Your task to perform on an android device: Go to internet settings Image 0: 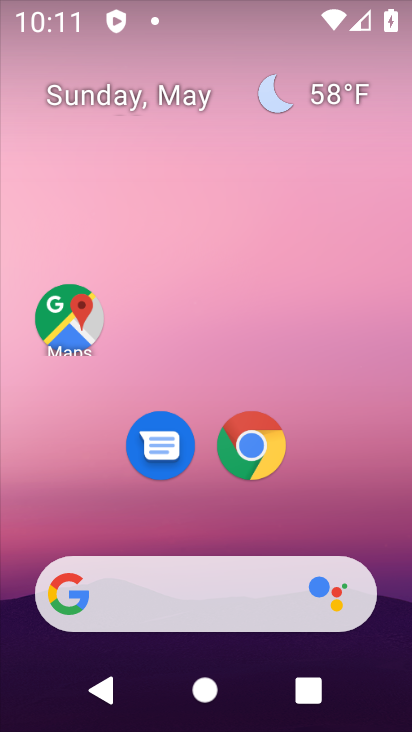
Step 0: drag from (335, 418) to (229, 41)
Your task to perform on an android device: Go to internet settings Image 1: 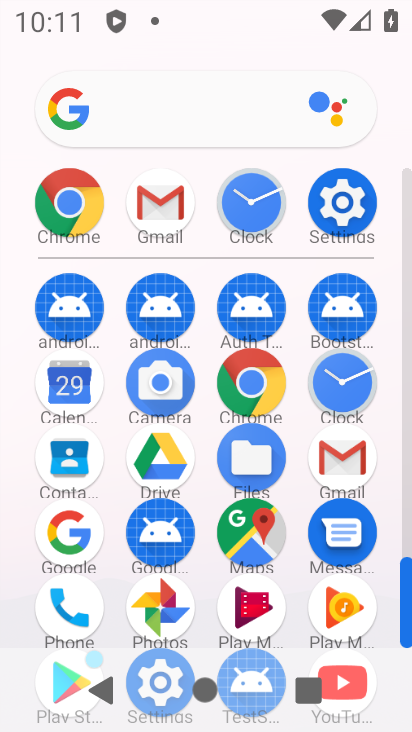
Step 1: click (0, 226)
Your task to perform on an android device: Go to internet settings Image 2: 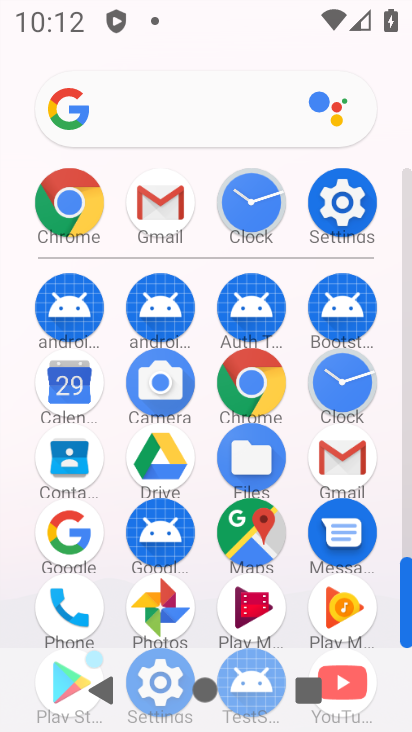
Step 2: drag from (21, 556) to (17, 267)
Your task to perform on an android device: Go to internet settings Image 3: 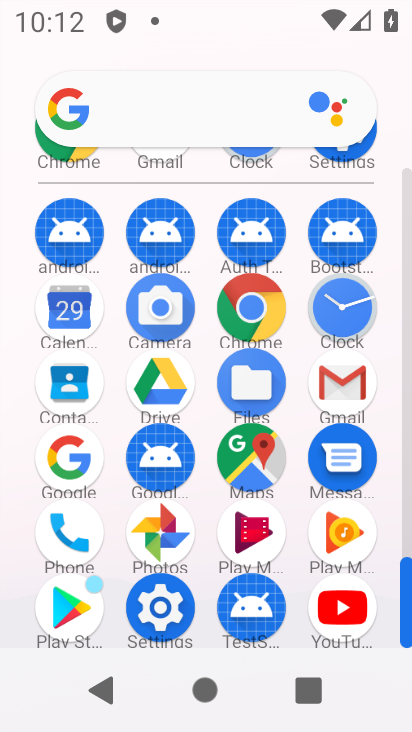
Step 3: click (159, 604)
Your task to perform on an android device: Go to internet settings Image 4: 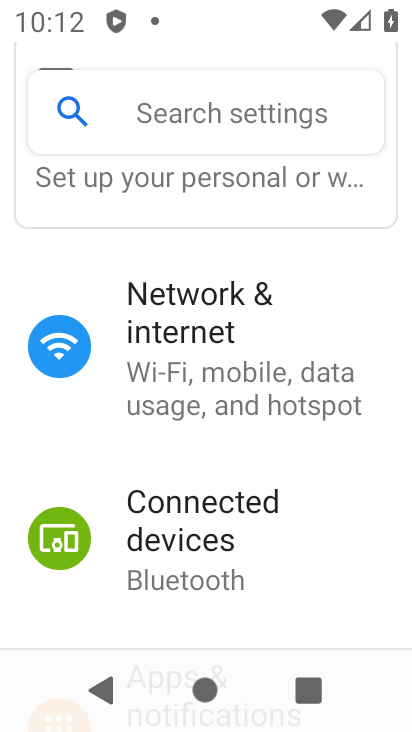
Step 4: click (174, 398)
Your task to perform on an android device: Go to internet settings Image 5: 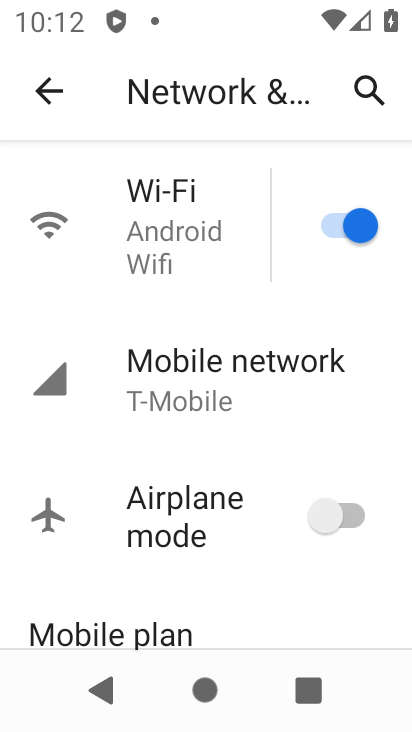
Step 5: drag from (178, 545) to (176, 226)
Your task to perform on an android device: Go to internet settings Image 6: 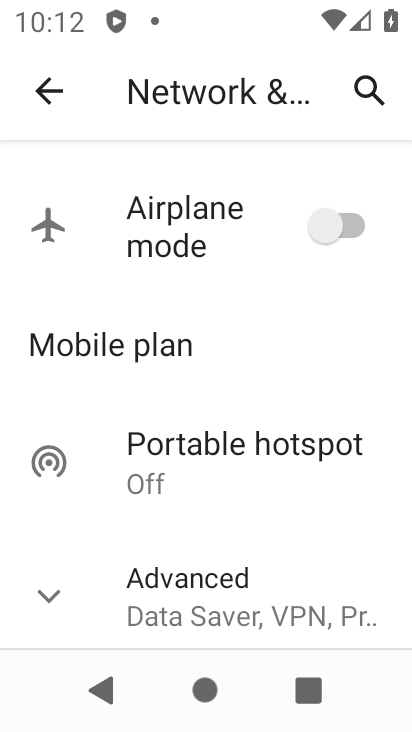
Step 6: drag from (175, 505) to (177, 199)
Your task to perform on an android device: Go to internet settings Image 7: 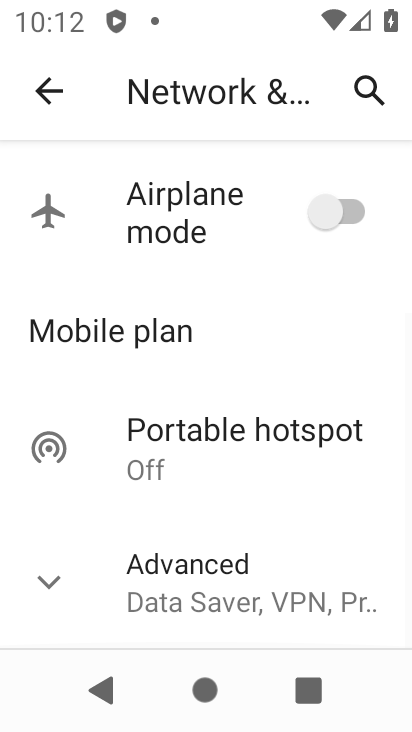
Step 7: click (42, 584)
Your task to perform on an android device: Go to internet settings Image 8: 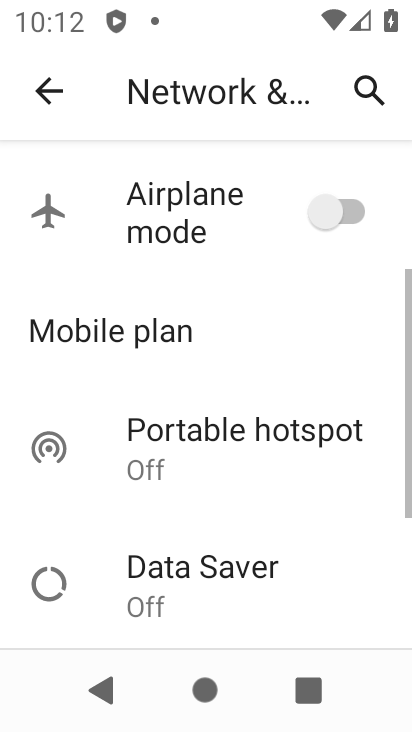
Step 8: task complete